Your task to perform on an android device: open app "Firefox Browser" (install if not already installed) Image 0: 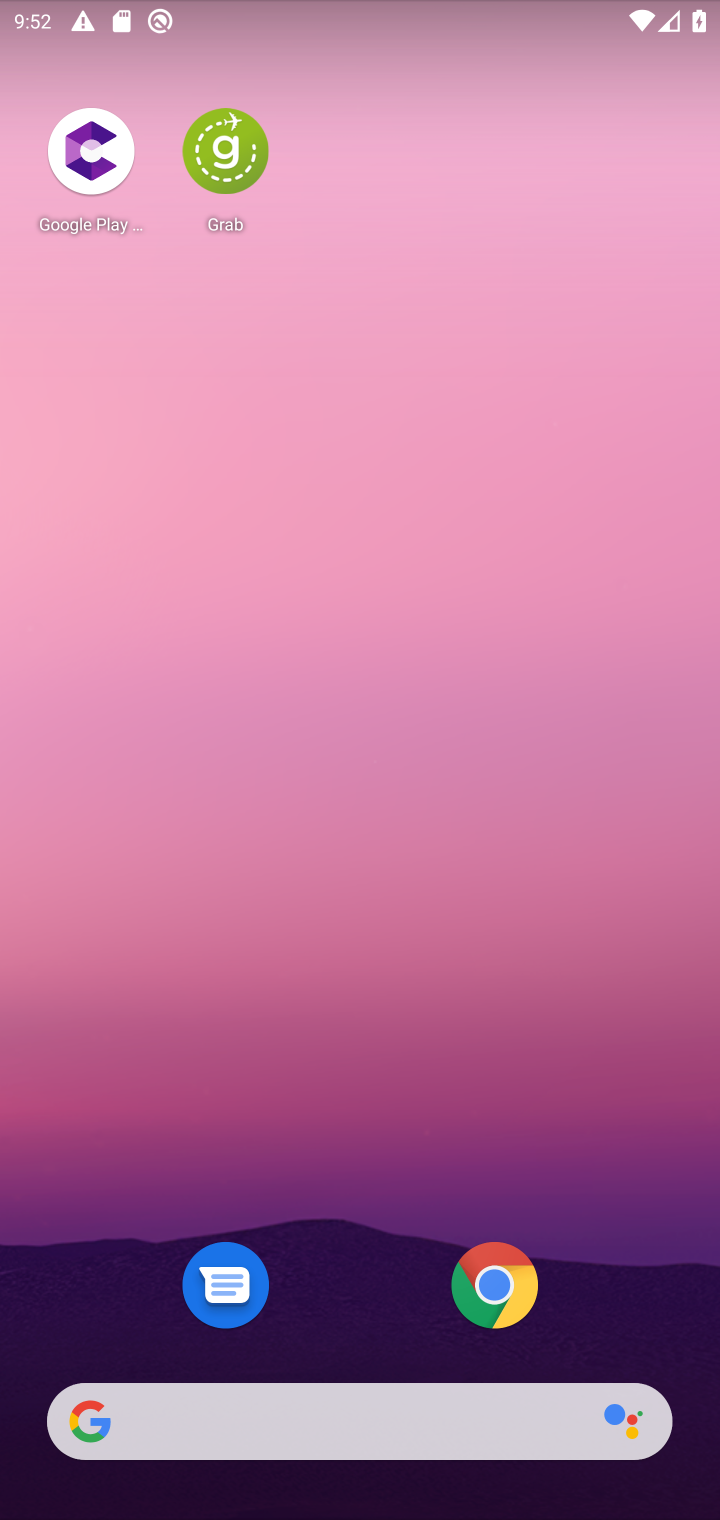
Step 0: drag from (548, 1091) to (401, 69)
Your task to perform on an android device: open app "Firefox Browser" (install if not already installed) Image 1: 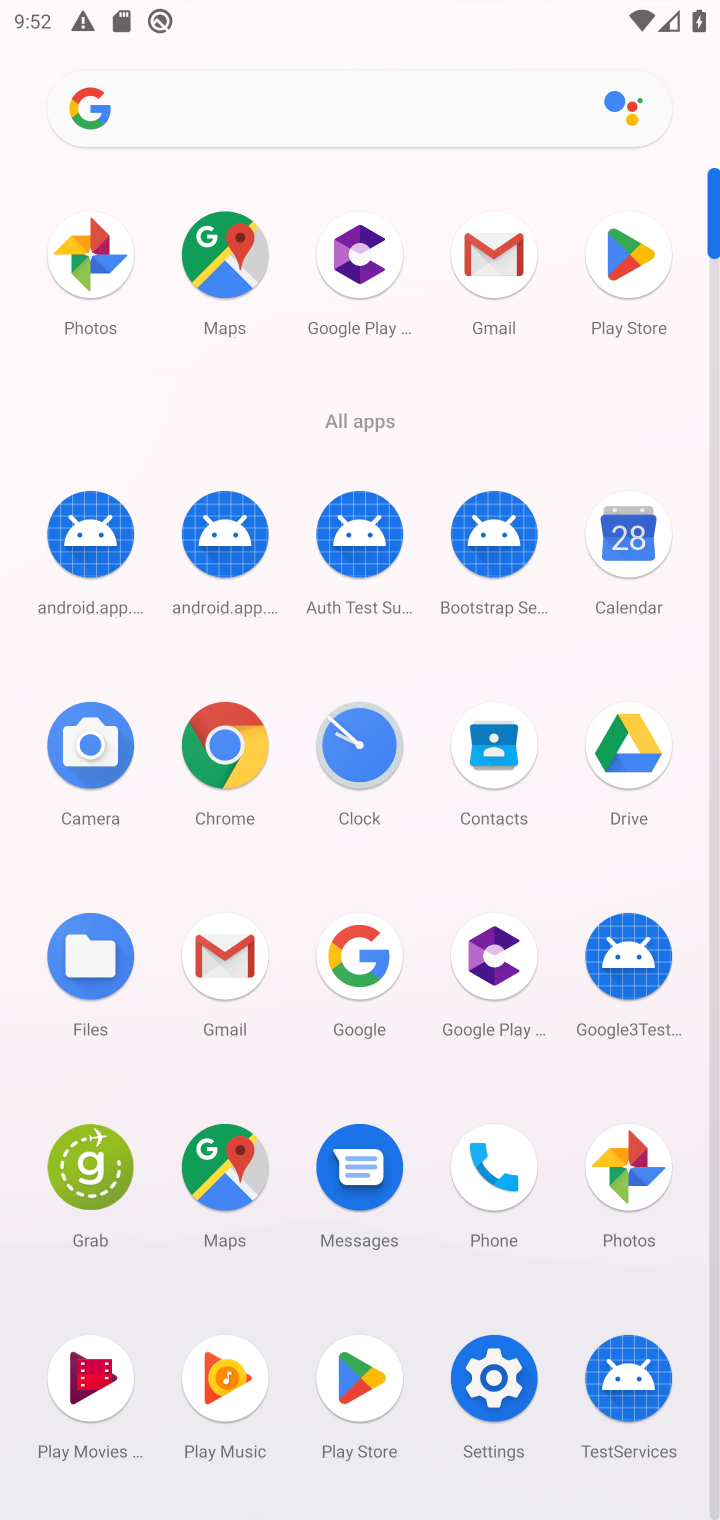
Step 1: click (629, 250)
Your task to perform on an android device: open app "Firefox Browser" (install if not already installed) Image 2: 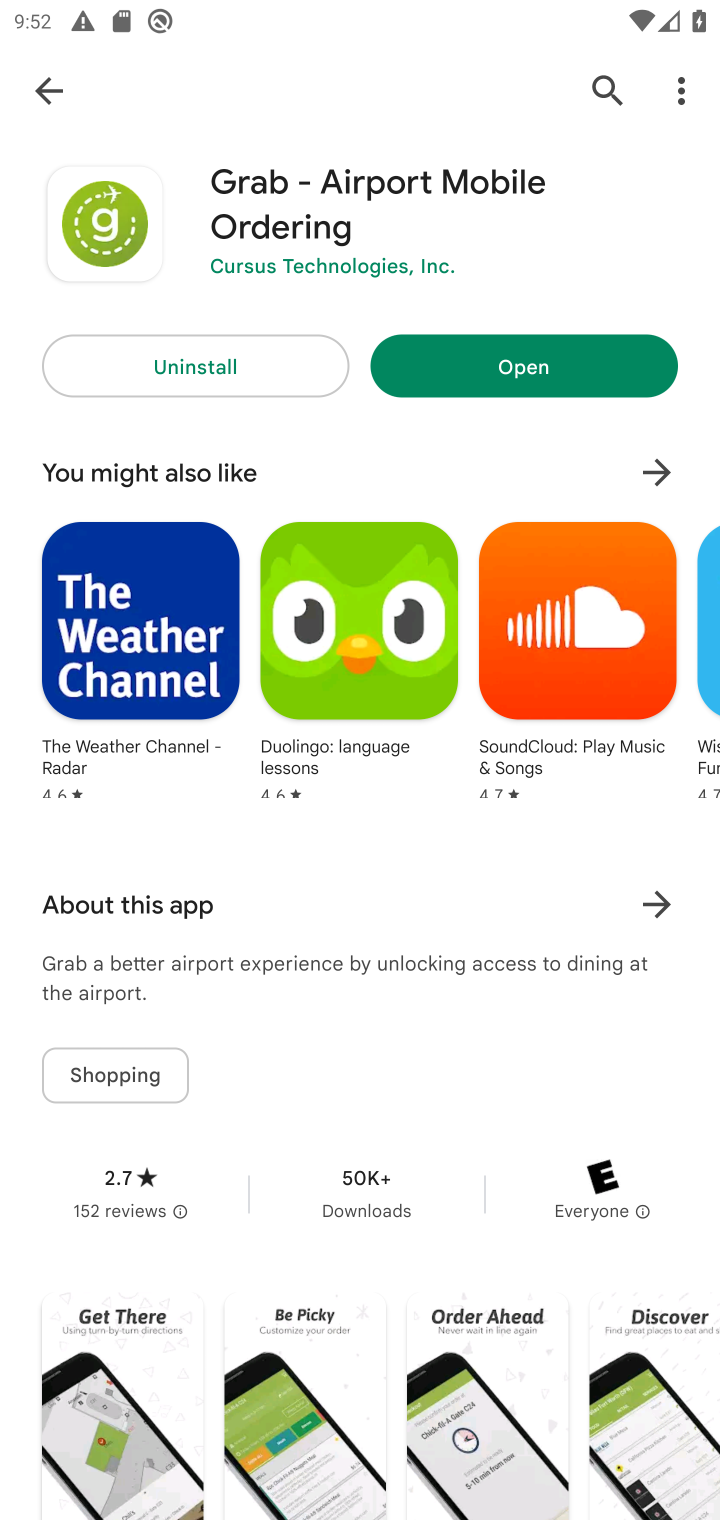
Step 2: click (614, 72)
Your task to perform on an android device: open app "Firefox Browser" (install if not already installed) Image 3: 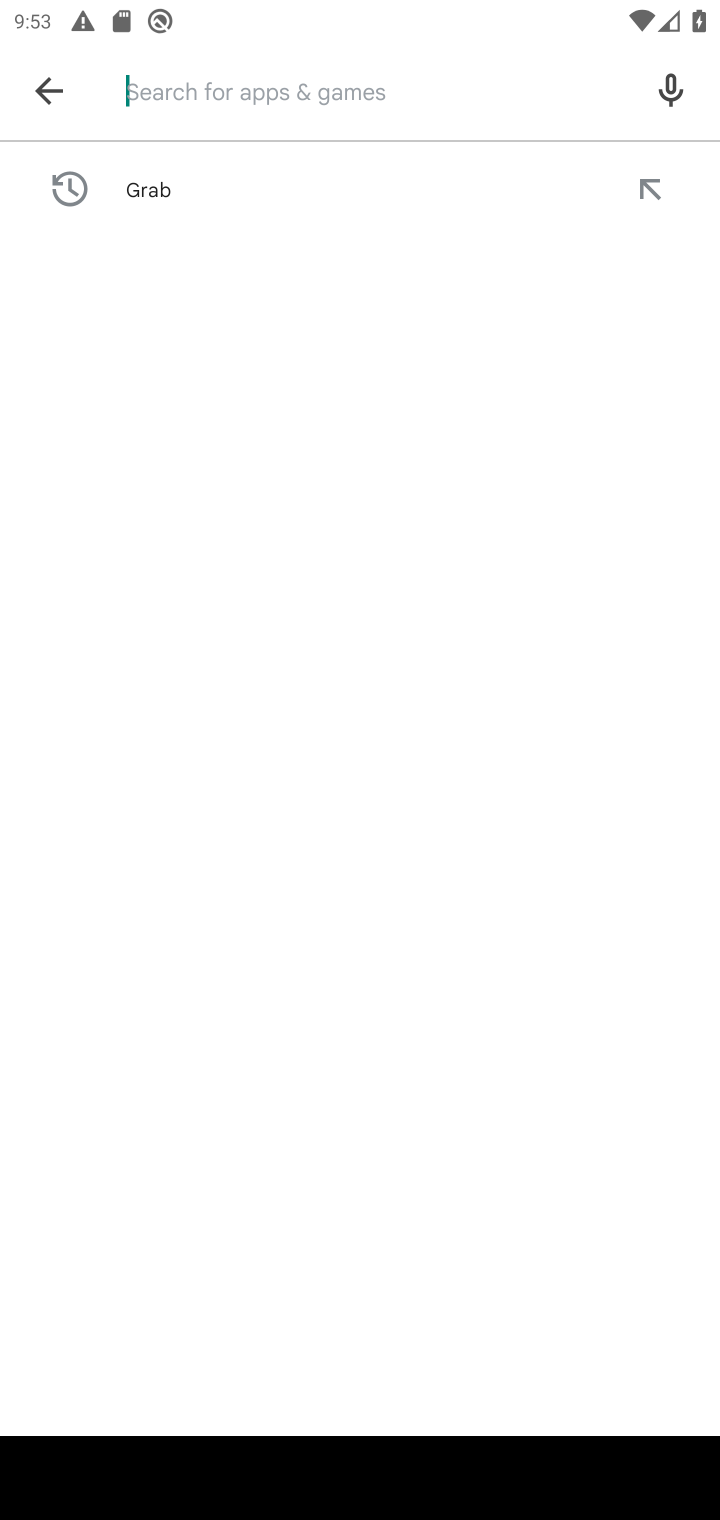
Step 3: type "Firefox Browser"
Your task to perform on an android device: open app "Firefox Browser" (install if not already installed) Image 4: 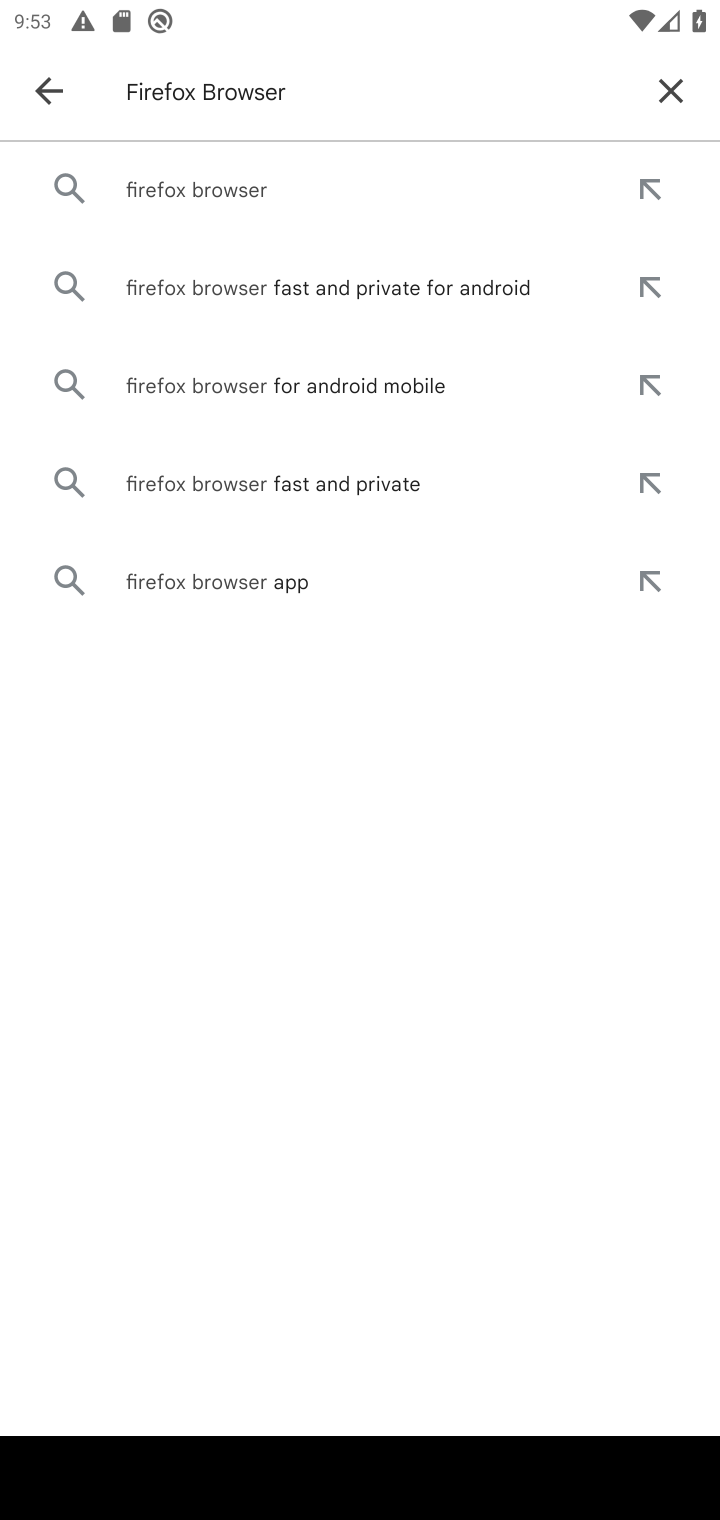
Step 4: press enter
Your task to perform on an android device: open app "Firefox Browser" (install if not already installed) Image 5: 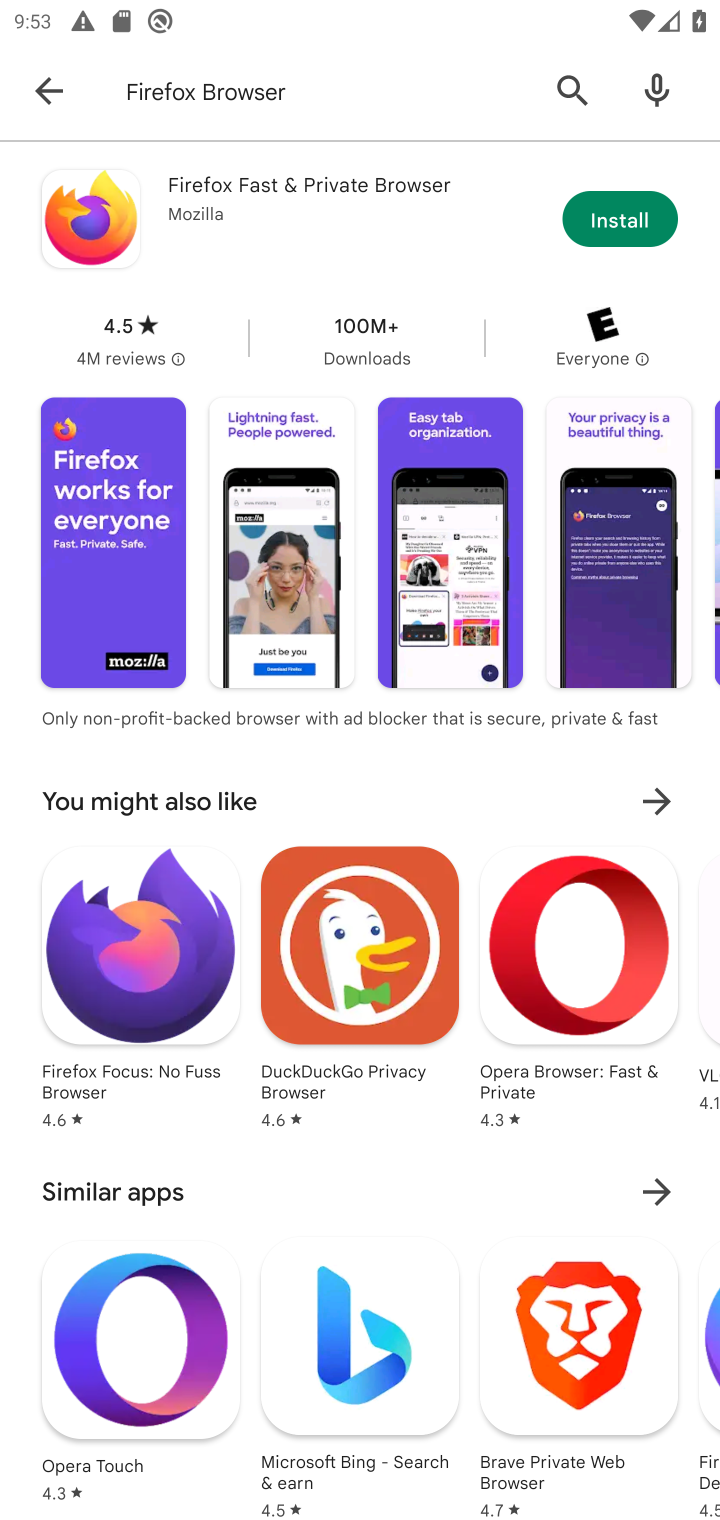
Step 5: click (625, 221)
Your task to perform on an android device: open app "Firefox Browser" (install if not already installed) Image 6: 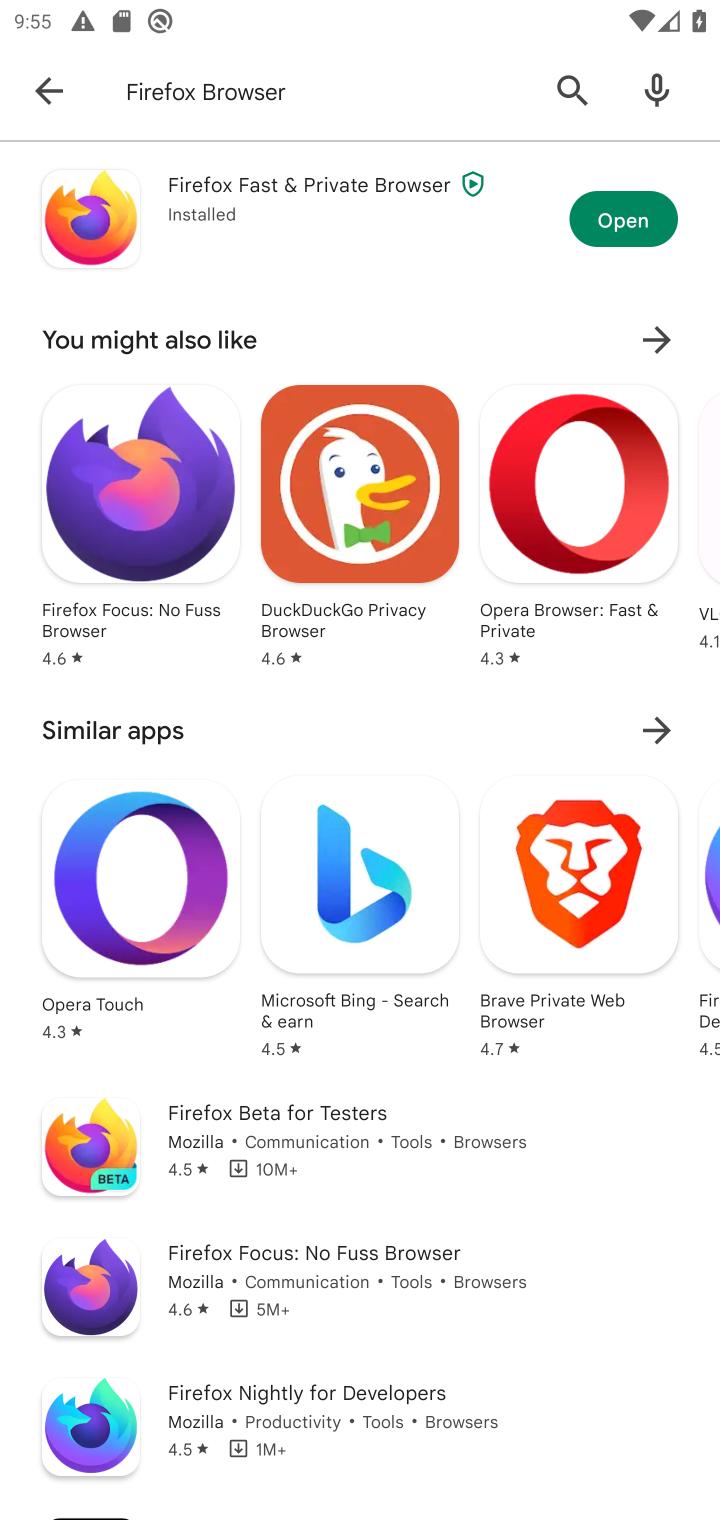
Step 6: click (623, 223)
Your task to perform on an android device: open app "Firefox Browser" (install if not already installed) Image 7: 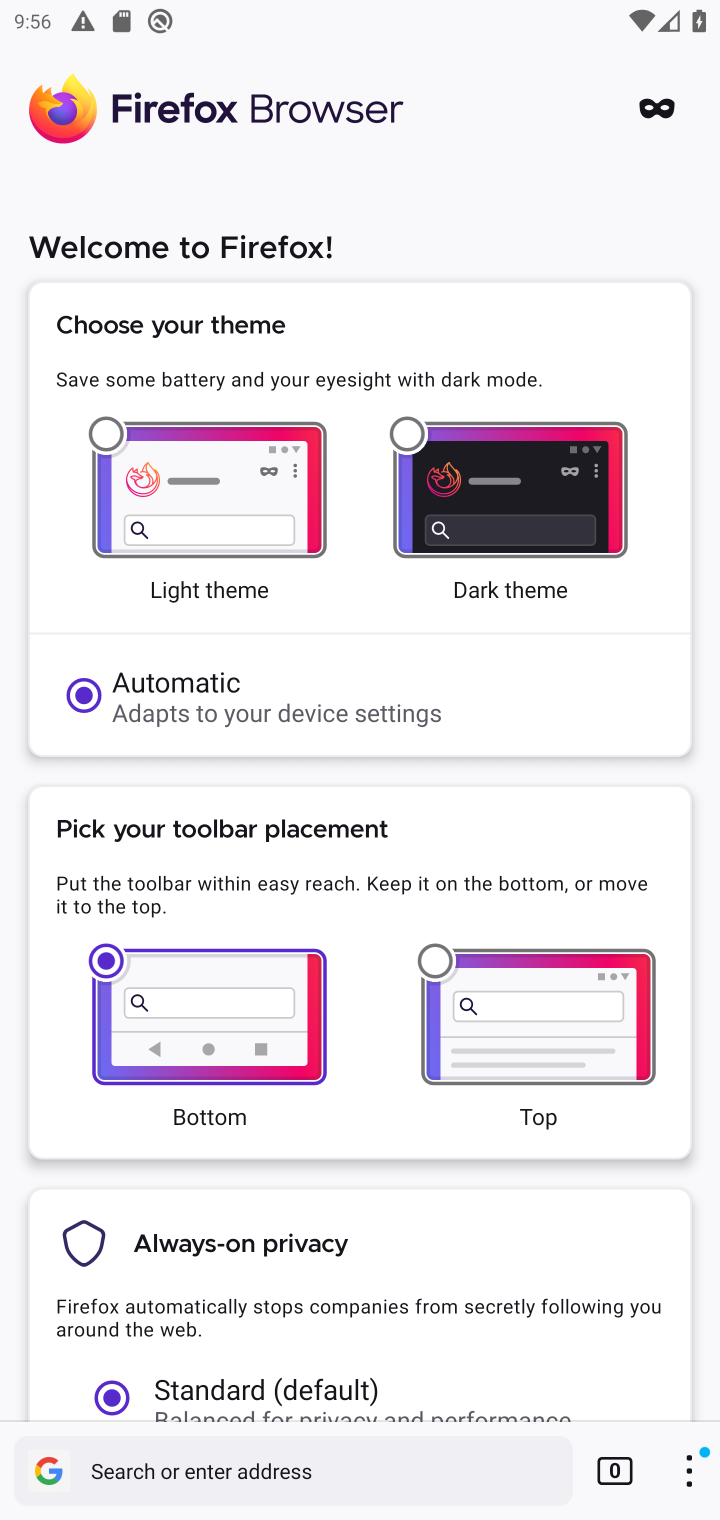
Step 7: task complete